Your task to perform on an android device: toggle sleep mode Image 0: 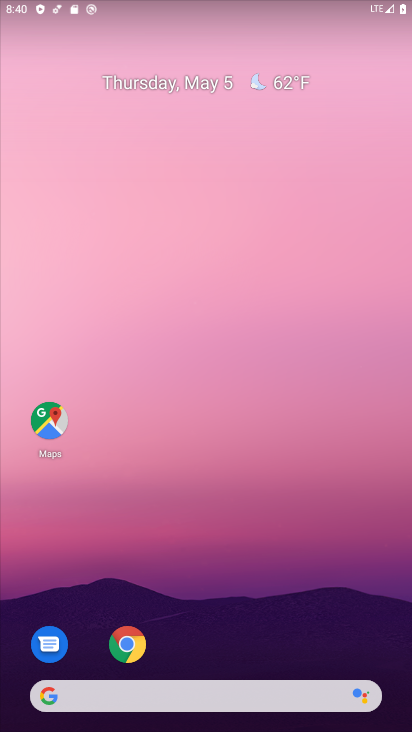
Step 0: drag from (277, 572) to (271, 9)
Your task to perform on an android device: toggle sleep mode Image 1: 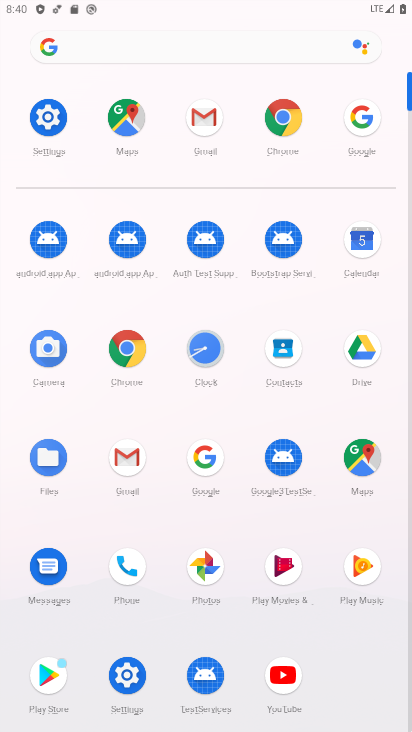
Step 1: click (42, 113)
Your task to perform on an android device: toggle sleep mode Image 2: 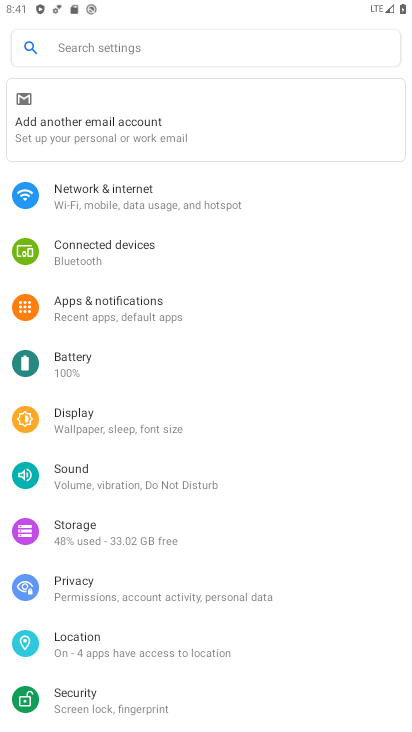
Step 2: click (60, 413)
Your task to perform on an android device: toggle sleep mode Image 3: 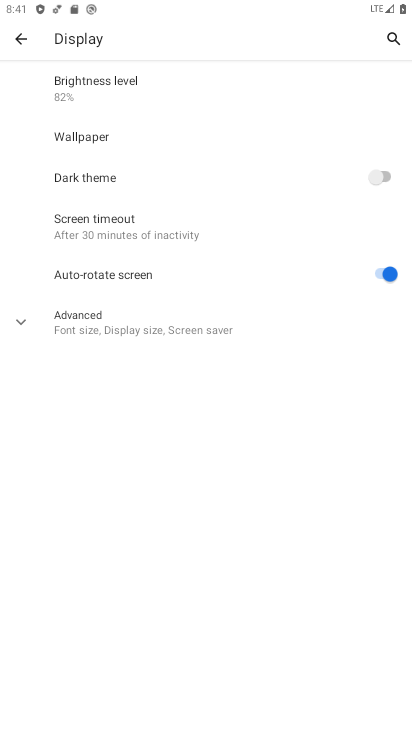
Step 3: click (96, 228)
Your task to perform on an android device: toggle sleep mode Image 4: 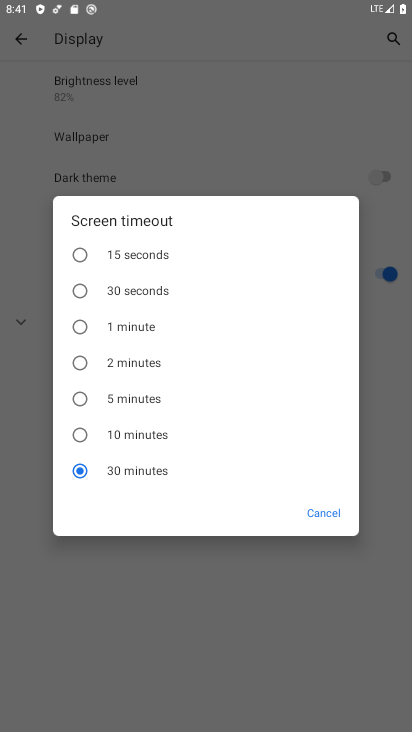
Step 4: click (81, 263)
Your task to perform on an android device: toggle sleep mode Image 5: 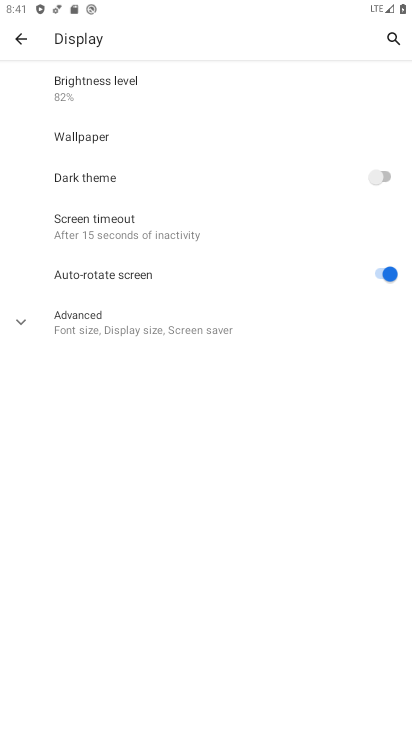
Step 5: task complete